Your task to perform on an android device: What is the news today? Image 0: 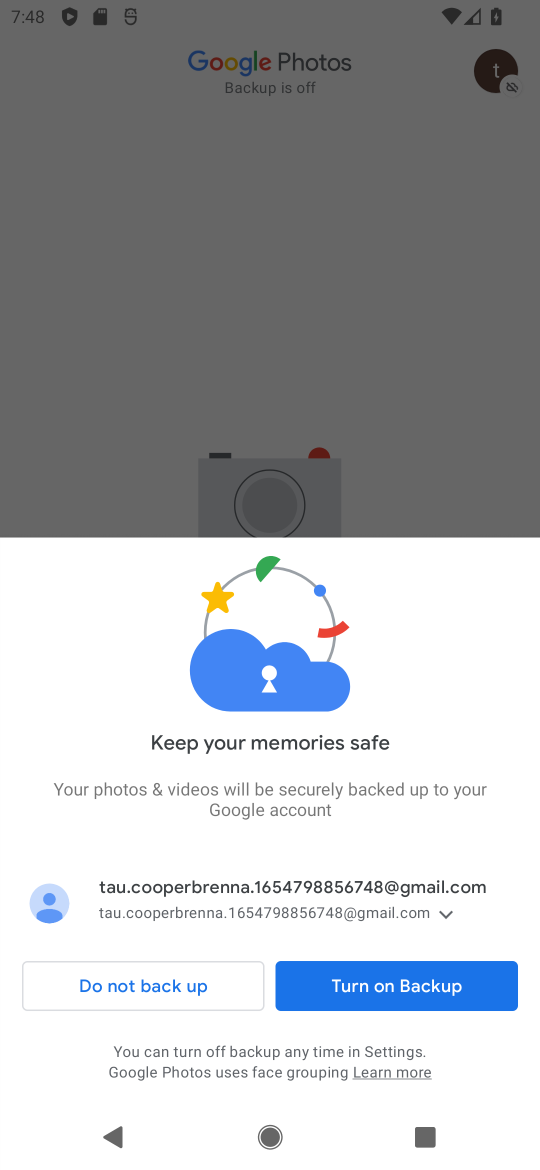
Step 0: press back button
Your task to perform on an android device: What is the news today? Image 1: 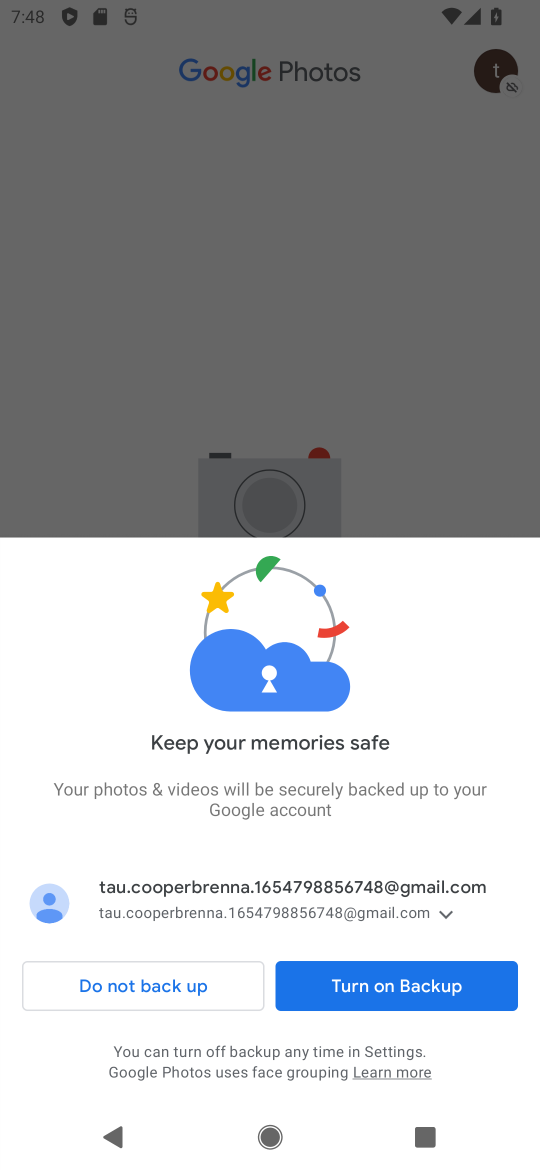
Step 1: drag from (392, 991) to (520, 993)
Your task to perform on an android device: What is the news today? Image 2: 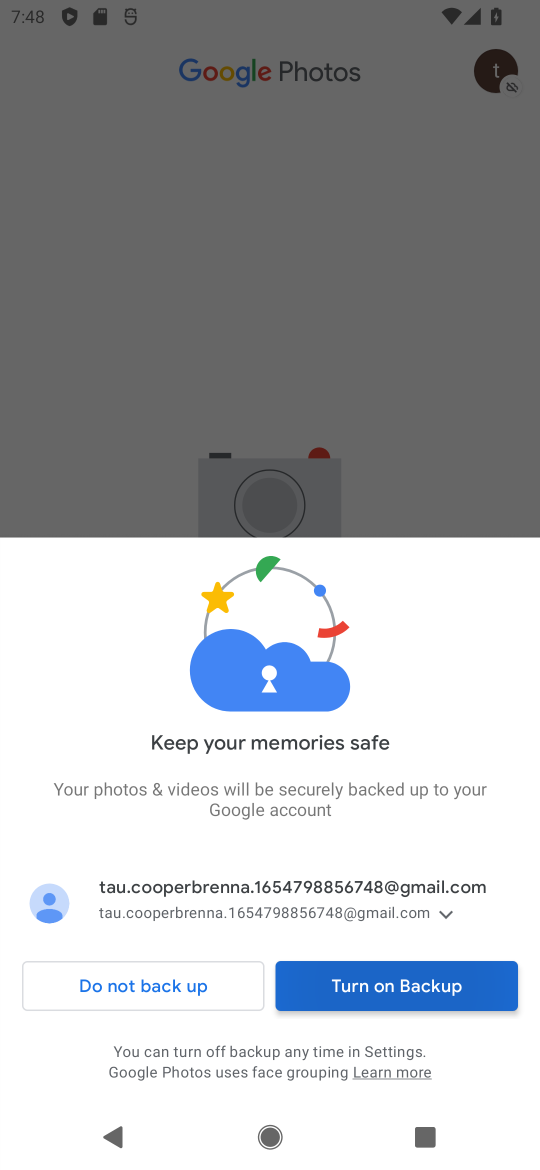
Step 2: press home button
Your task to perform on an android device: What is the news today? Image 3: 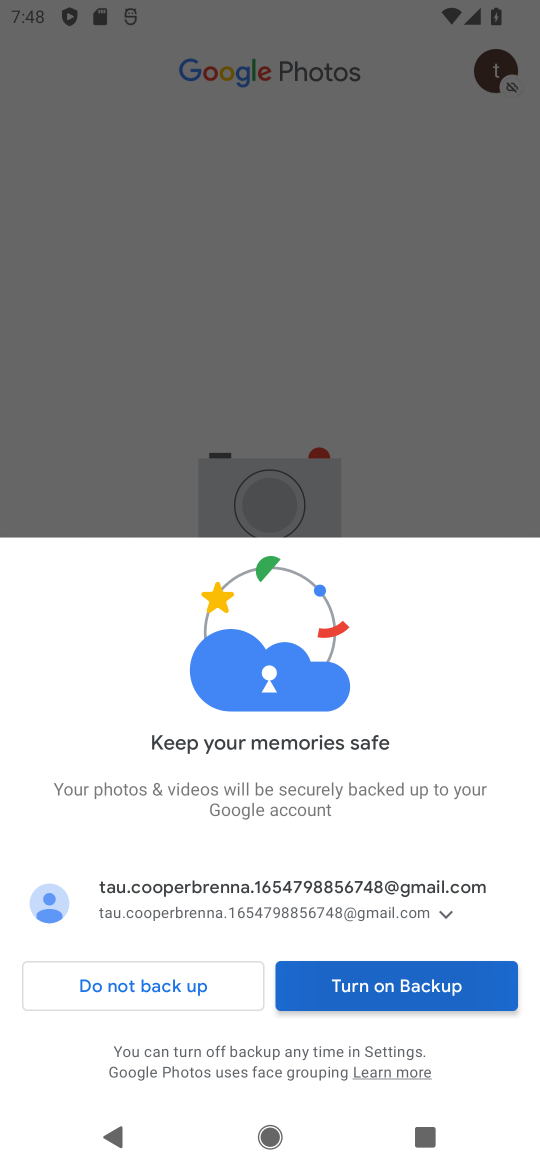
Step 3: drag from (520, 993) to (535, 712)
Your task to perform on an android device: What is the news today? Image 4: 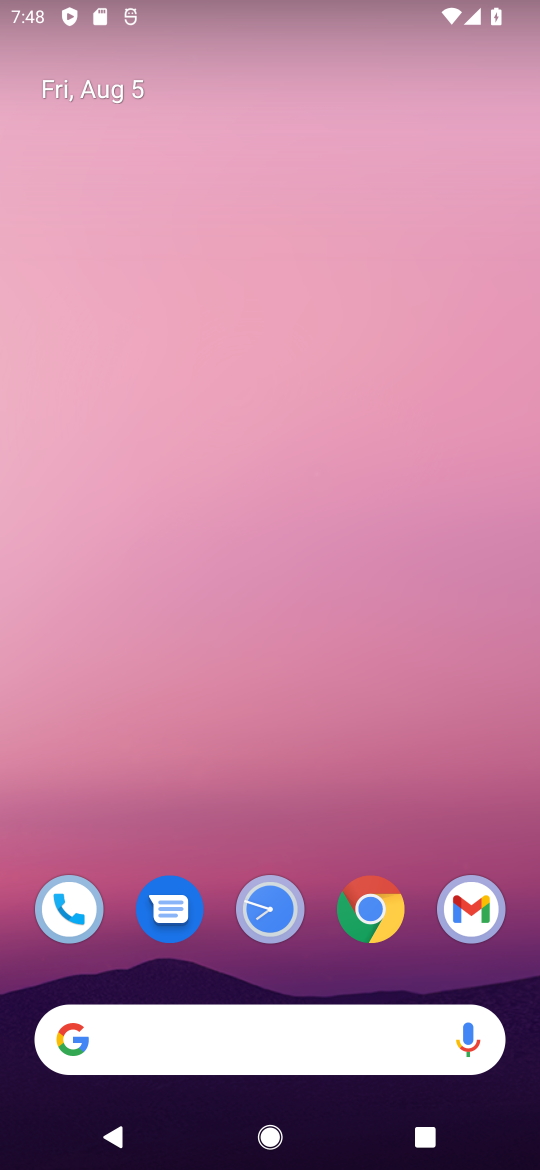
Step 4: drag from (403, 832) to (310, 163)
Your task to perform on an android device: What is the news today? Image 5: 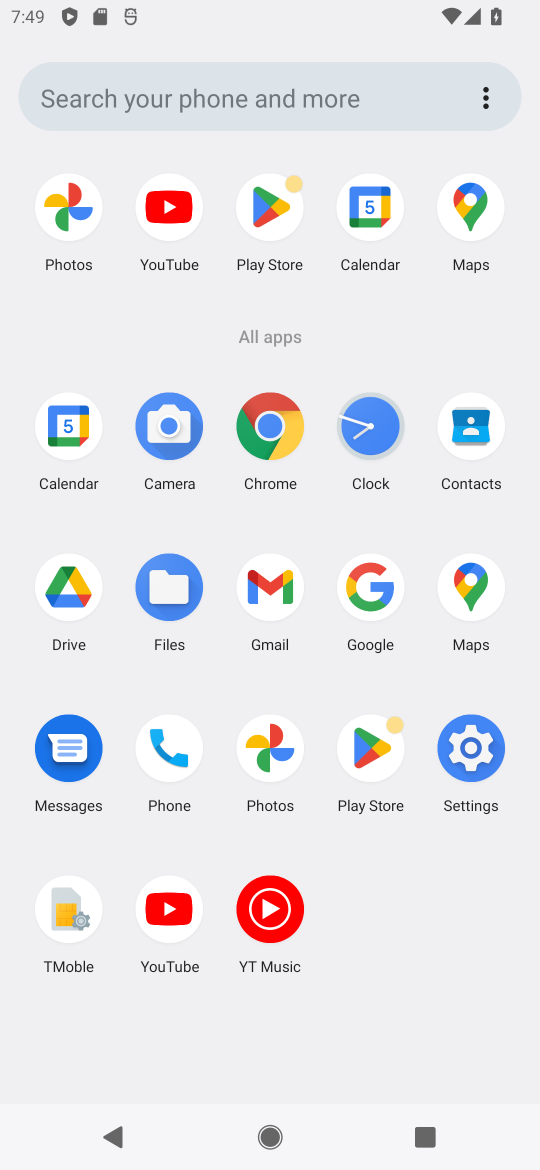
Step 5: click (258, 441)
Your task to perform on an android device: What is the news today? Image 6: 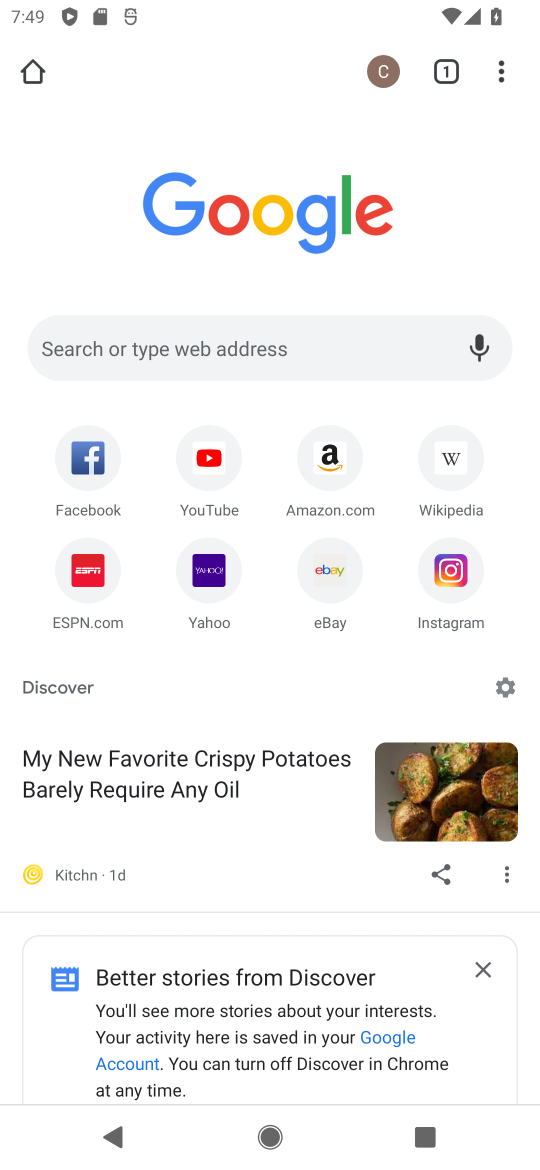
Step 6: click (302, 349)
Your task to perform on an android device: What is the news today? Image 7: 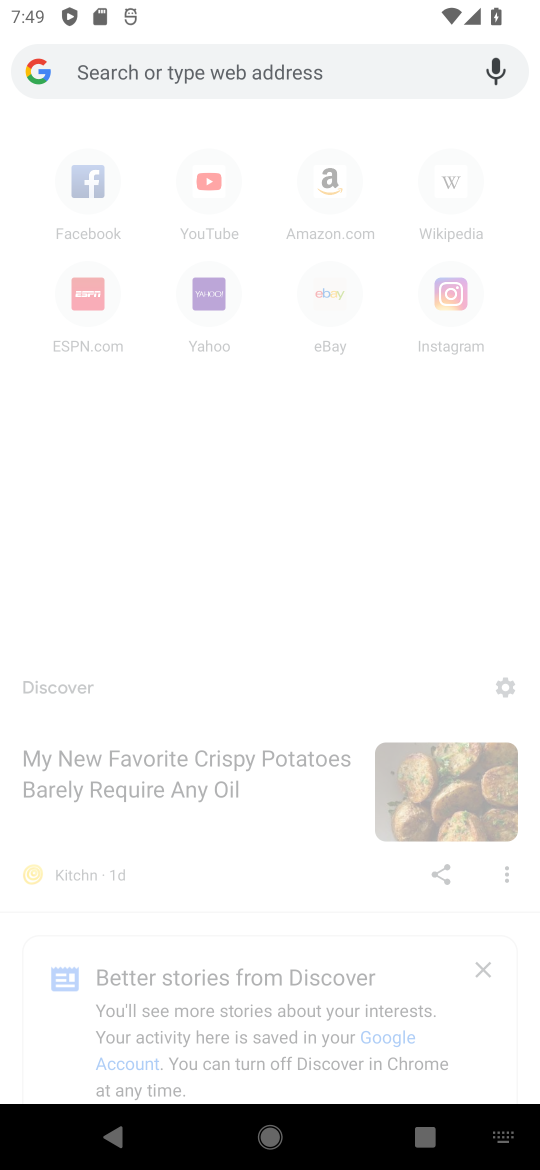
Step 7: type "What is the news today?"
Your task to perform on an android device: What is the news today? Image 8: 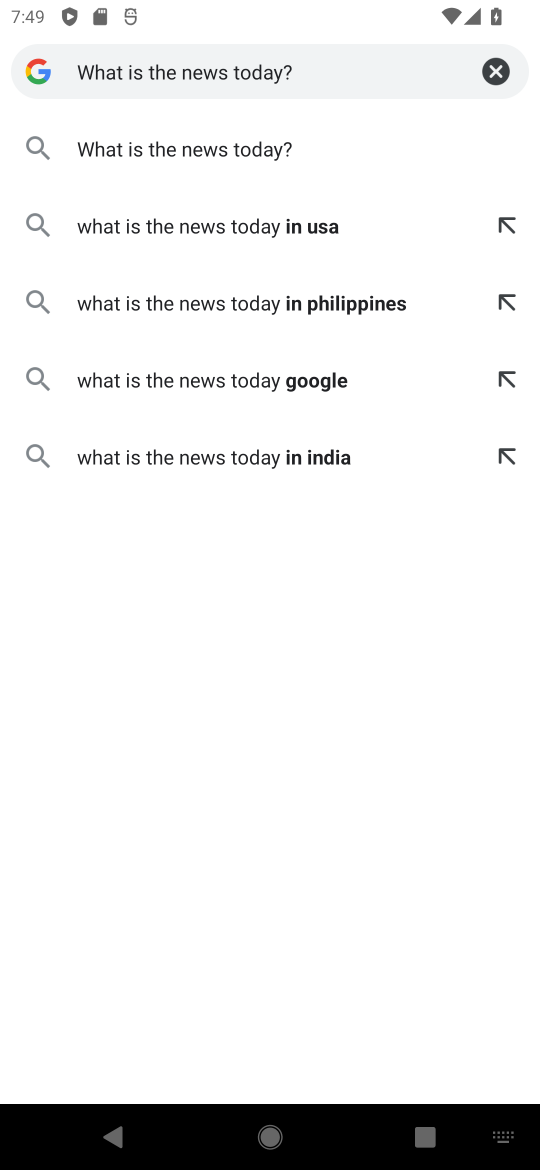
Step 8: click (274, 161)
Your task to perform on an android device: What is the news today? Image 9: 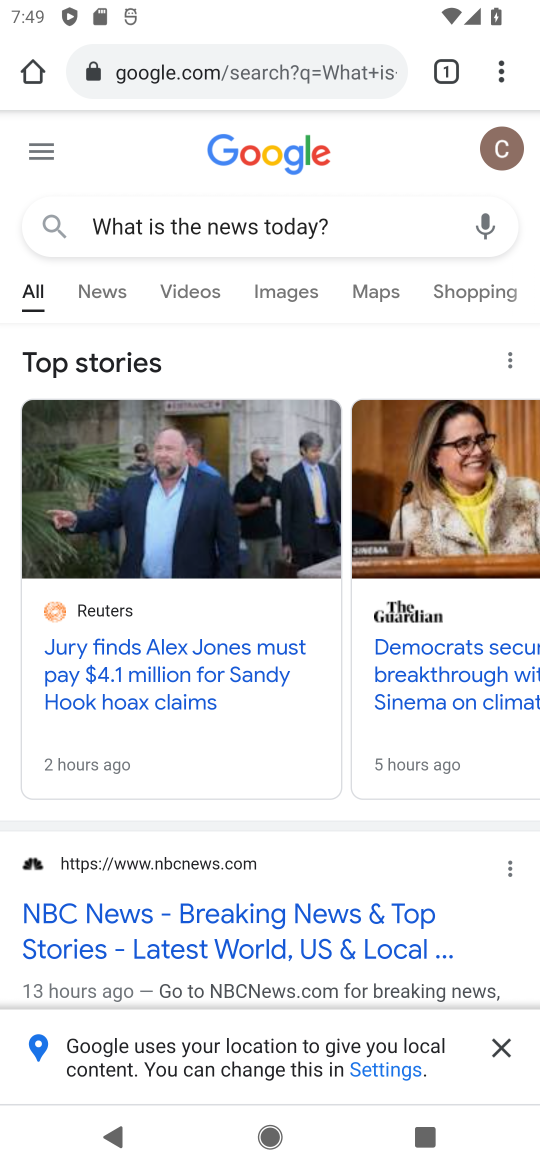
Step 9: task complete